Your task to perform on an android device: allow notifications from all sites in the chrome app Image 0: 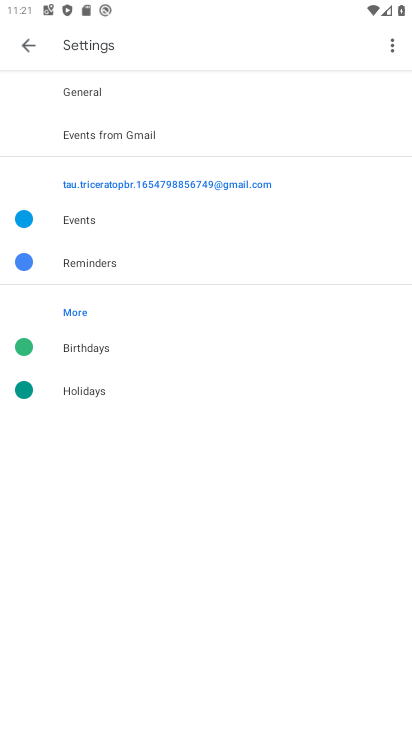
Step 0: press home button
Your task to perform on an android device: allow notifications from all sites in the chrome app Image 1: 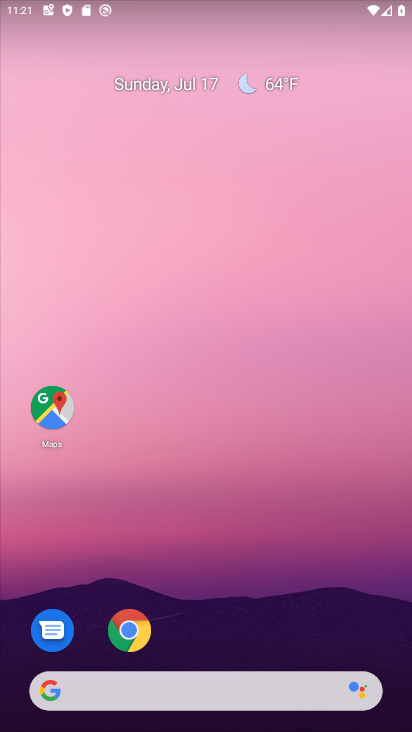
Step 1: drag from (375, 621) to (291, 110)
Your task to perform on an android device: allow notifications from all sites in the chrome app Image 2: 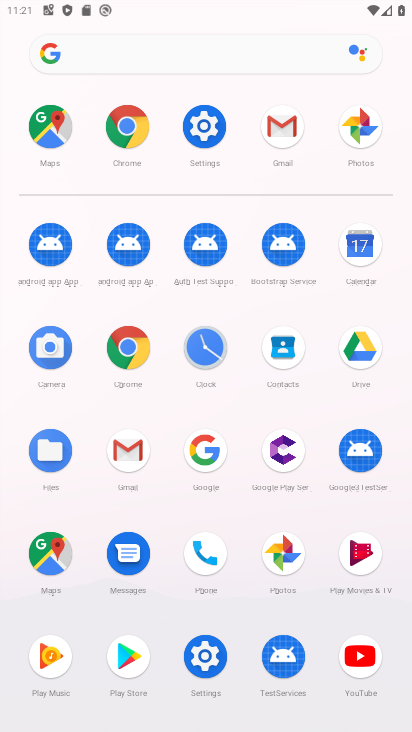
Step 2: click (127, 347)
Your task to perform on an android device: allow notifications from all sites in the chrome app Image 3: 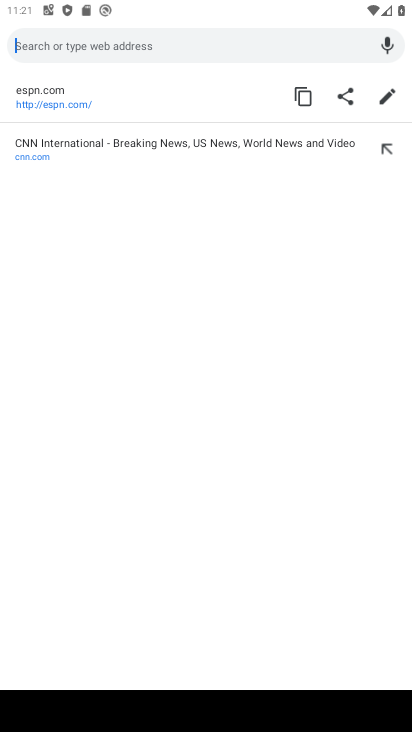
Step 3: press back button
Your task to perform on an android device: allow notifications from all sites in the chrome app Image 4: 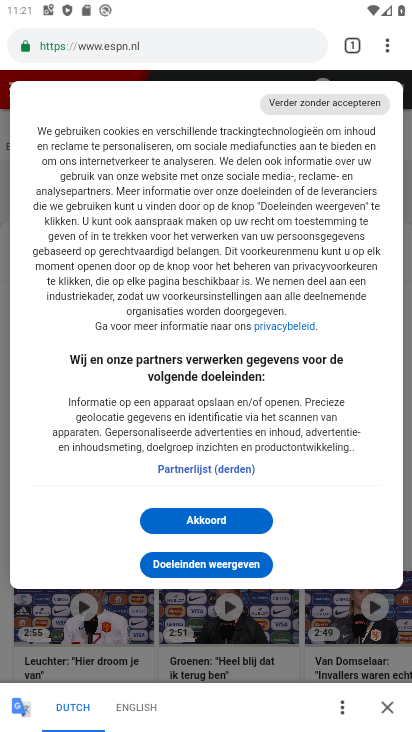
Step 4: click (384, 51)
Your task to perform on an android device: allow notifications from all sites in the chrome app Image 5: 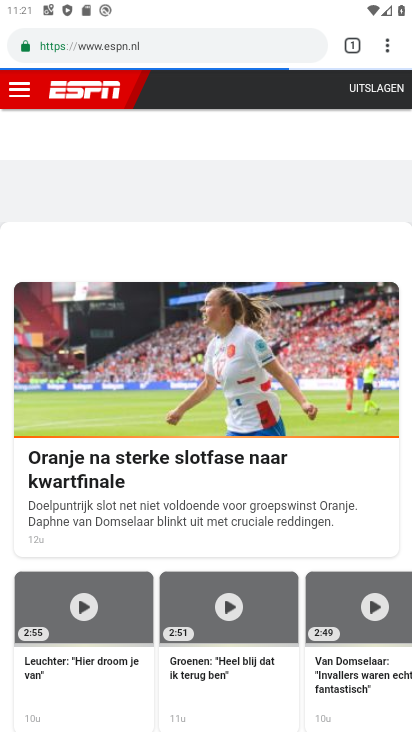
Step 5: click (387, 49)
Your task to perform on an android device: allow notifications from all sites in the chrome app Image 6: 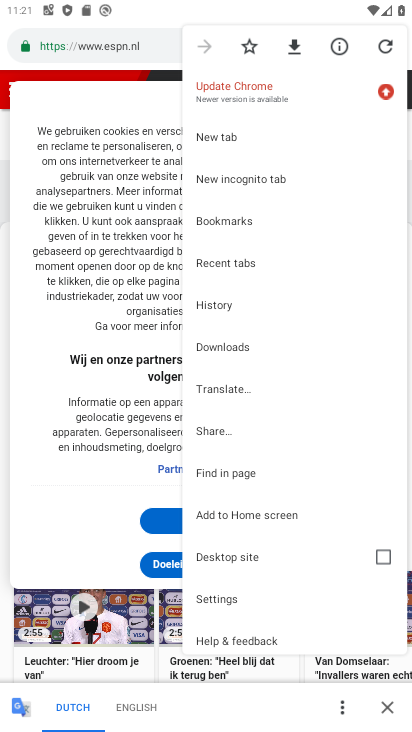
Step 6: click (234, 600)
Your task to perform on an android device: allow notifications from all sites in the chrome app Image 7: 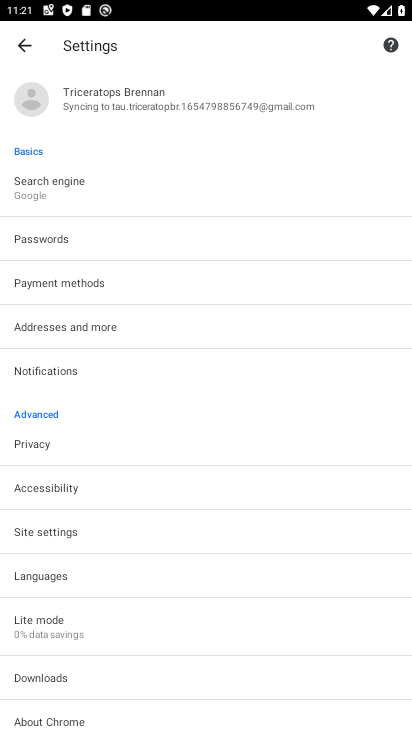
Step 7: drag from (194, 576) to (189, 385)
Your task to perform on an android device: allow notifications from all sites in the chrome app Image 8: 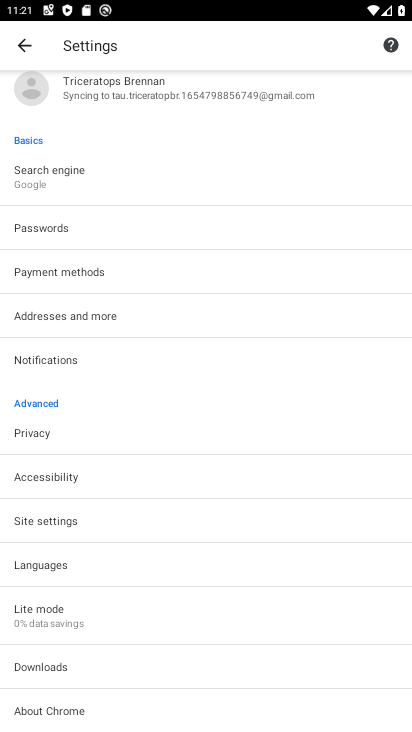
Step 8: click (50, 521)
Your task to perform on an android device: allow notifications from all sites in the chrome app Image 9: 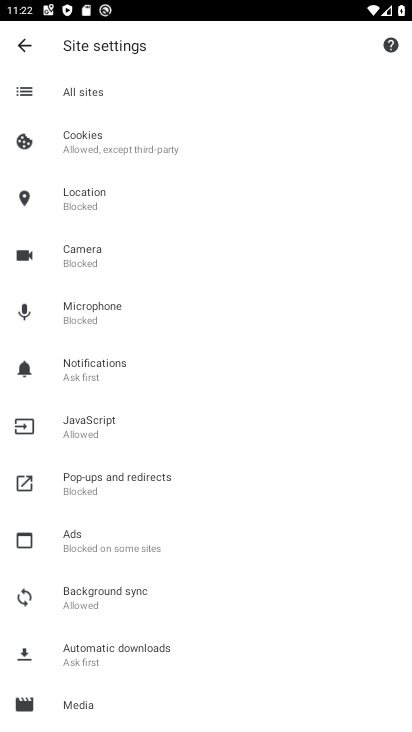
Step 9: click (88, 362)
Your task to perform on an android device: allow notifications from all sites in the chrome app Image 10: 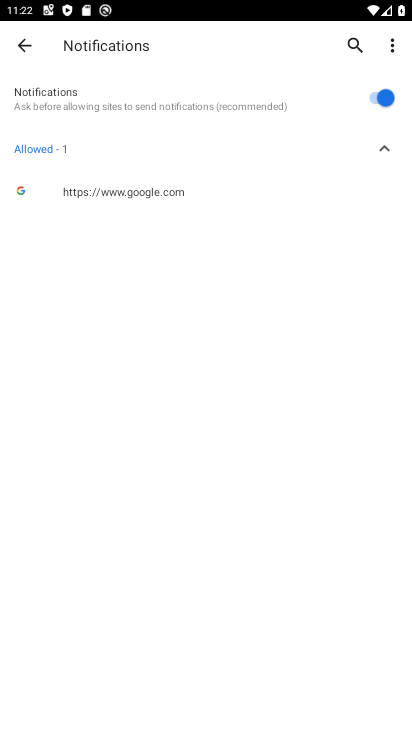
Step 10: task complete